Your task to perform on an android device: Go to Reddit.com Image 0: 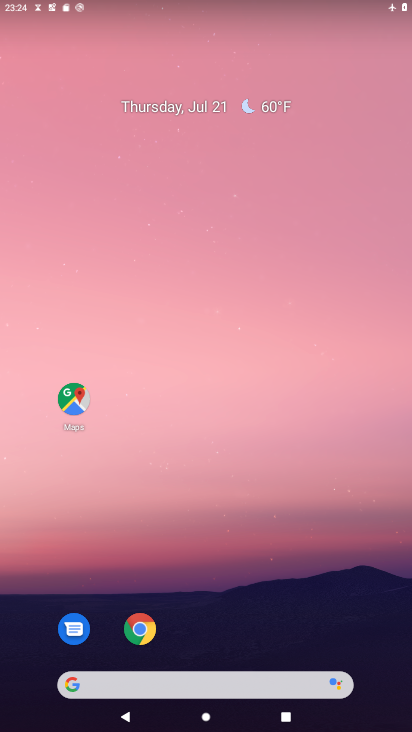
Step 0: click (110, 636)
Your task to perform on an android device: Go to Reddit.com Image 1: 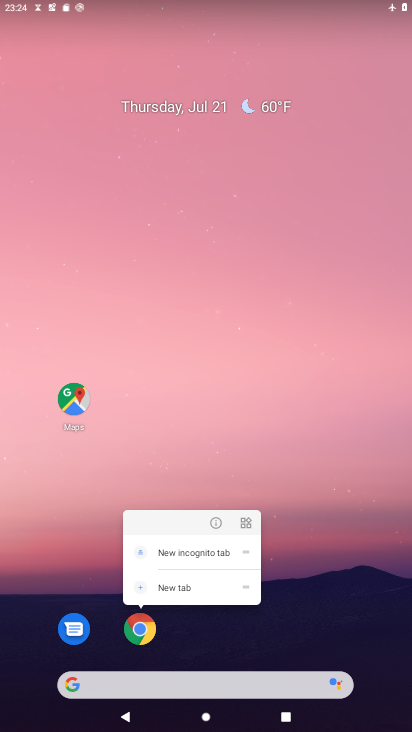
Step 1: click (149, 636)
Your task to perform on an android device: Go to Reddit.com Image 2: 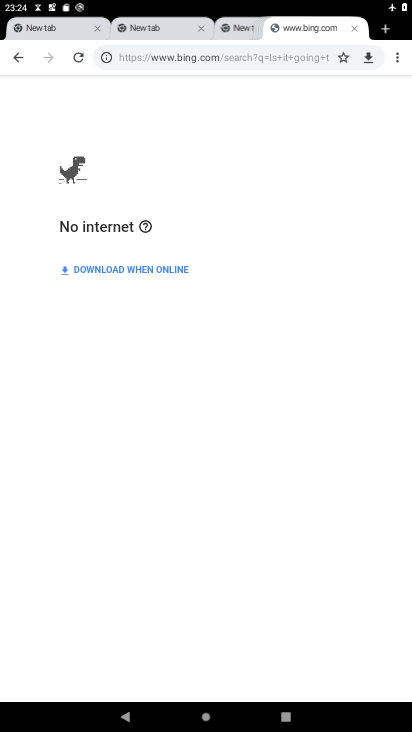
Step 2: click (387, 34)
Your task to perform on an android device: Go to Reddit.com Image 3: 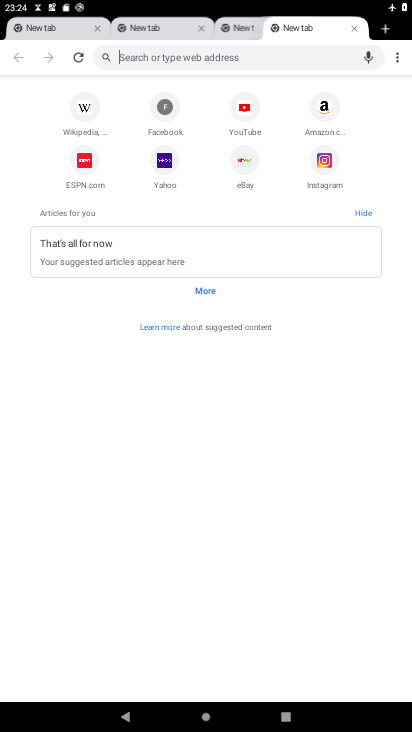
Step 3: click (217, 54)
Your task to perform on an android device: Go to Reddit.com Image 4: 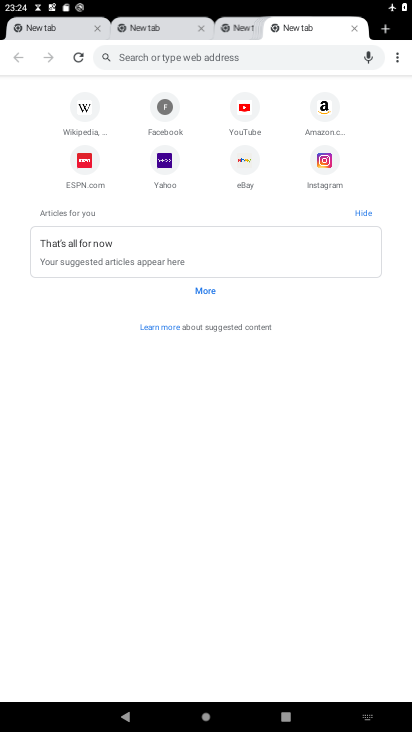
Step 4: type "Reddit.com "
Your task to perform on an android device: Go to Reddit.com Image 5: 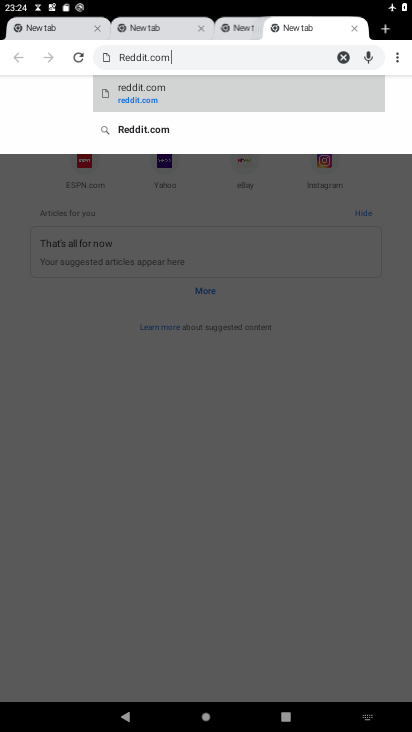
Step 5: click (170, 95)
Your task to perform on an android device: Go to Reddit.com Image 6: 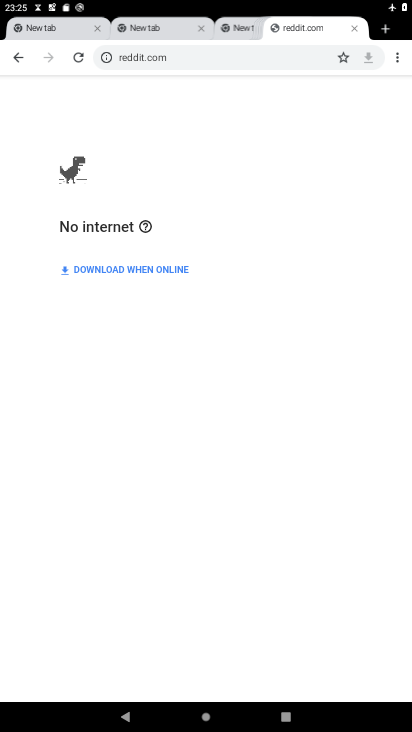
Step 6: task complete